Your task to perform on an android device: turn notification dots on Image 0: 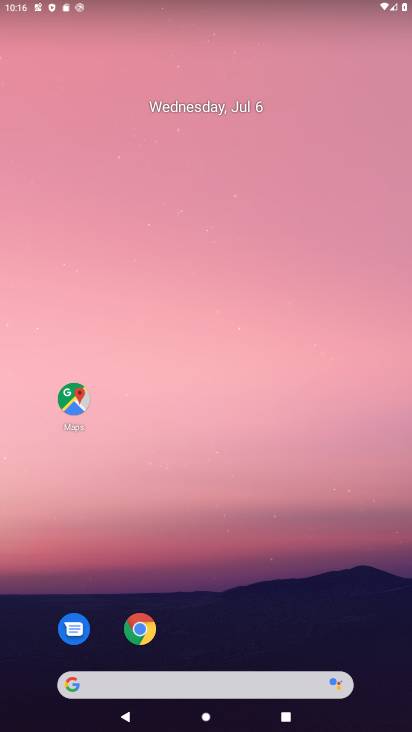
Step 0: drag from (236, 636) to (209, 89)
Your task to perform on an android device: turn notification dots on Image 1: 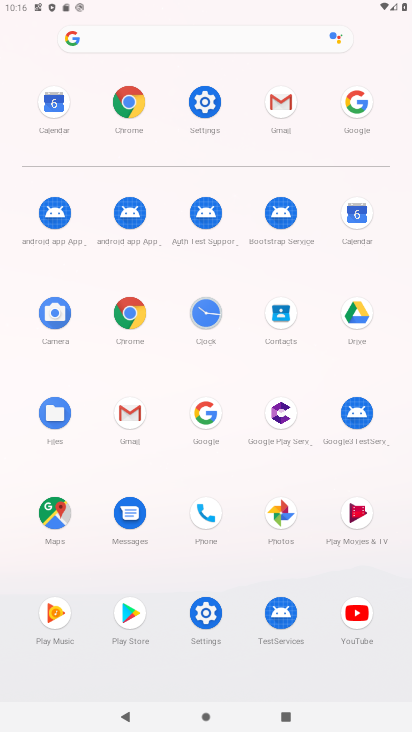
Step 1: click (209, 105)
Your task to perform on an android device: turn notification dots on Image 2: 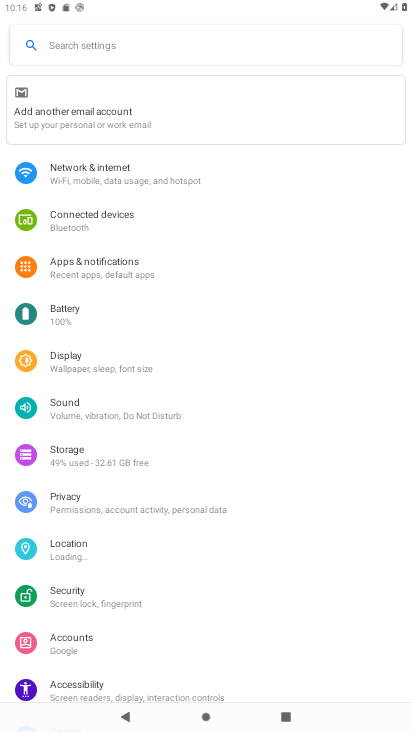
Step 2: click (130, 273)
Your task to perform on an android device: turn notification dots on Image 3: 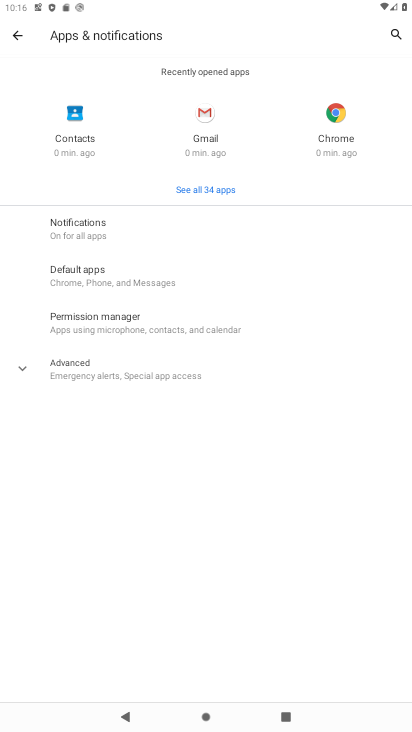
Step 3: click (109, 236)
Your task to perform on an android device: turn notification dots on Image 4: 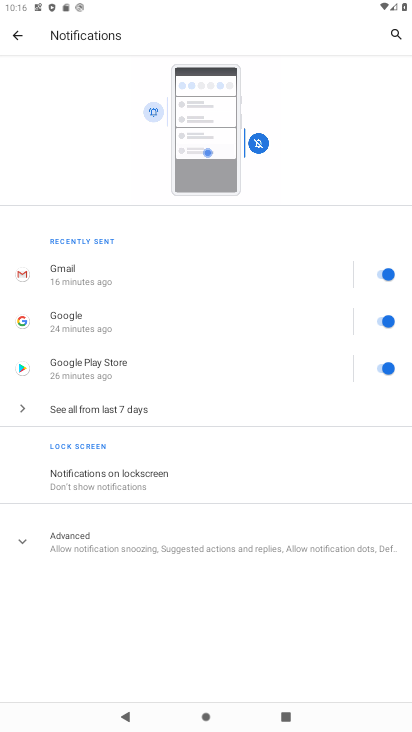
Step 4: click (55, 546)
Your task to perform on an android device: turn notification dots on Image 5: 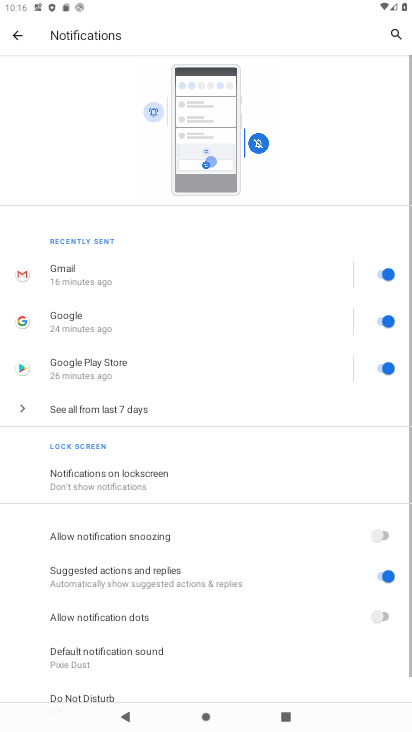
Step 5: drag from (193, 470) to (168, 298)
Your task to perform on an android device: turn notification dots on Image 6: 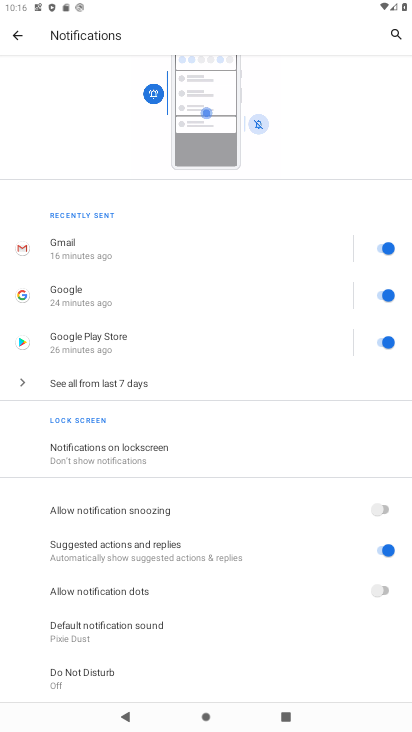
Step 6: click (382, 587)
Your task to perform on an android device: turn notification dots on Image 7: 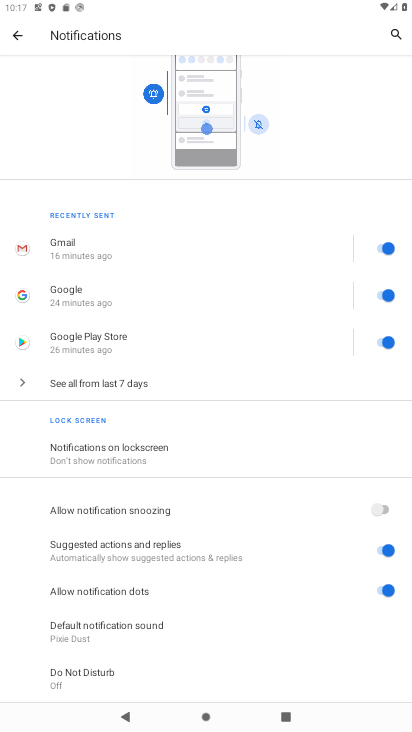
Step 7: task complete